Your task to perform on an android device: Open eBay Image 0: 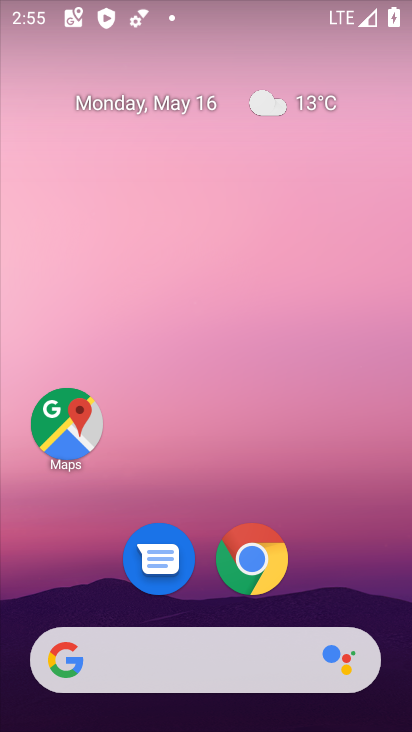
Step 0: click (266, 563)
Your task to perform on an android device: Open eBay Image 1: 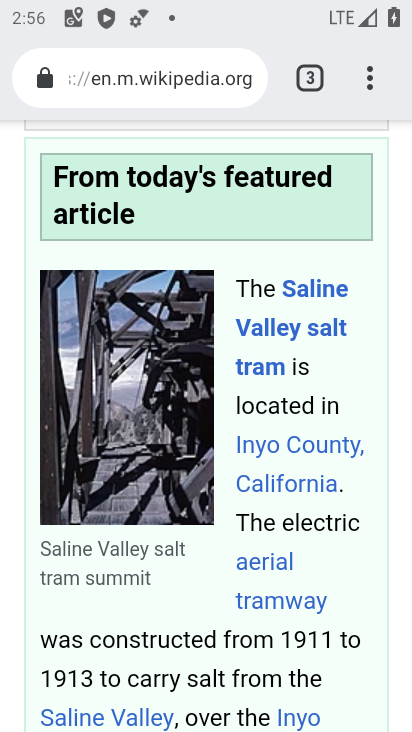
Step 1: click (314, 85)
Your task to perform on an android device: Open eBay Image 2: 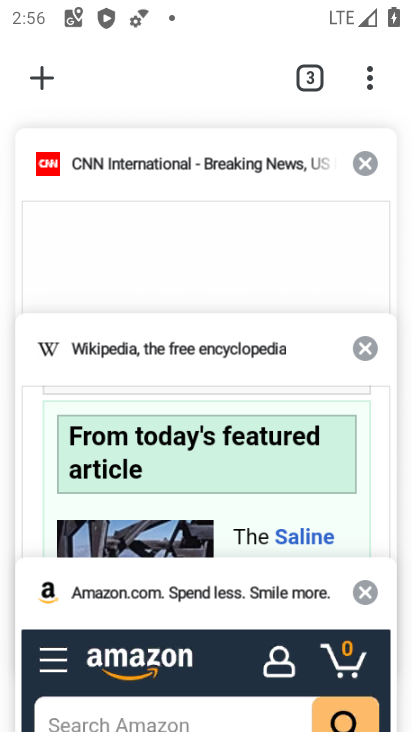
Step 2: click (38, 67)
Your task to perform on an android device: Open eBay Image 3: 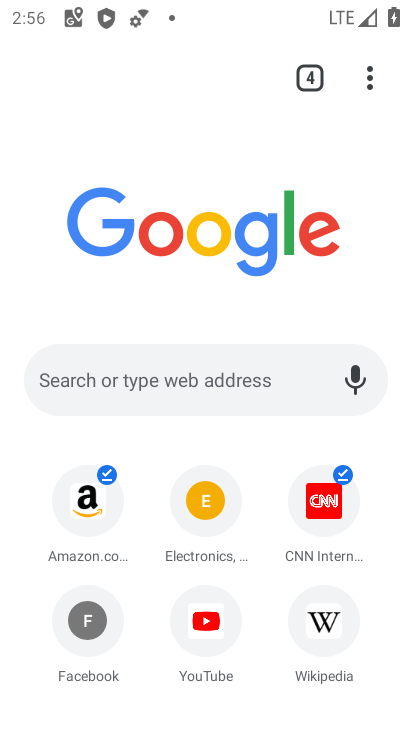
Step 3: click (128, 373)
Your task to perform on an android device: Open eBay Image 4: 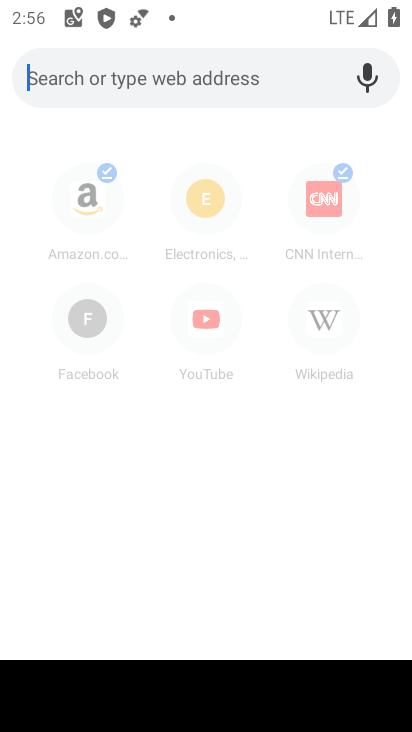
Step 4: type "ebay"
Your task to perform on an android device: Open eBay Image 5: 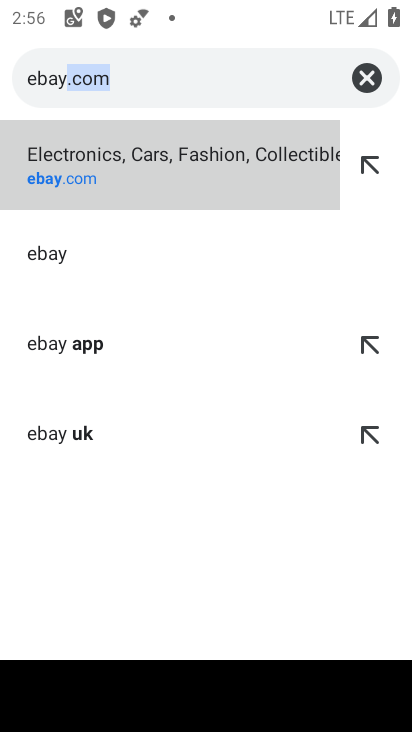
Step 5: click (193, 173)
Your task to perform on an android device: Open eBay Image 6: 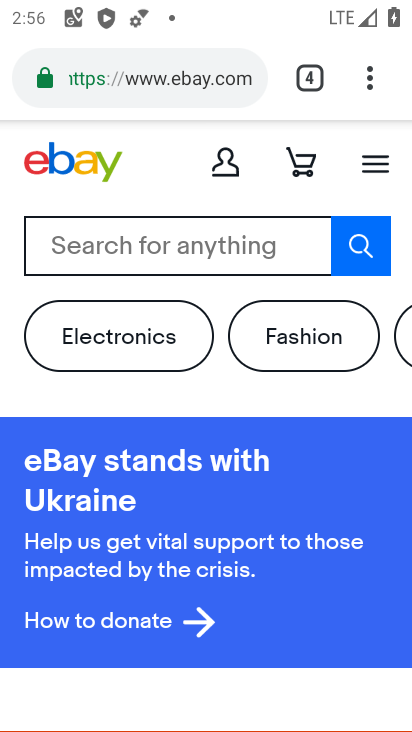
Step 6: task complete